Your task to perform on an android device: What's the weather today? Image 0: 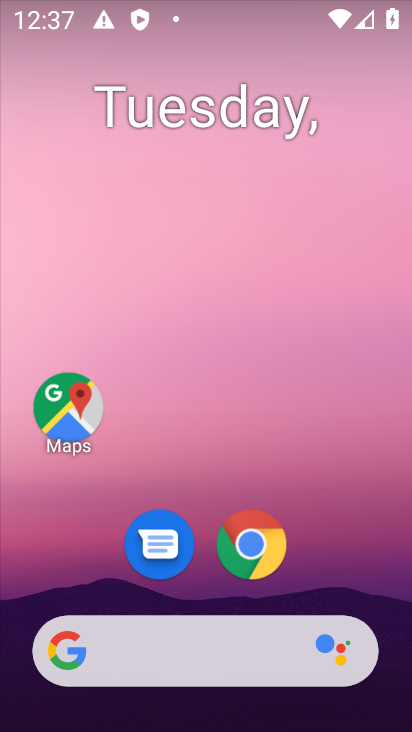
Step 0: click (249, 548)
Your task to perform on an android device: What's the weather today? Image 1: 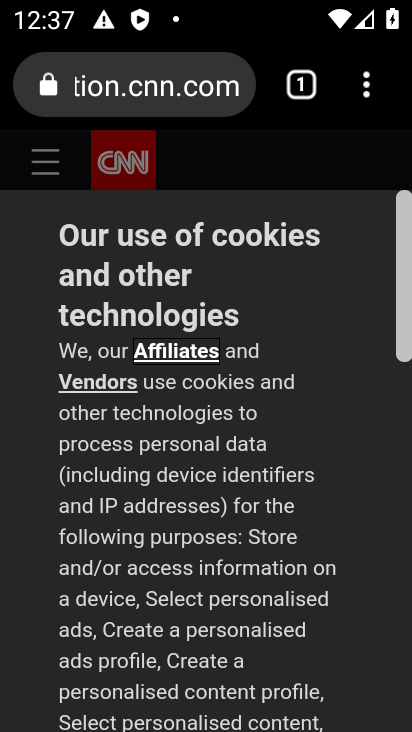
Step 1: click (152, 88)
Your task to perform on an android device: What's the weather today? Image 2: 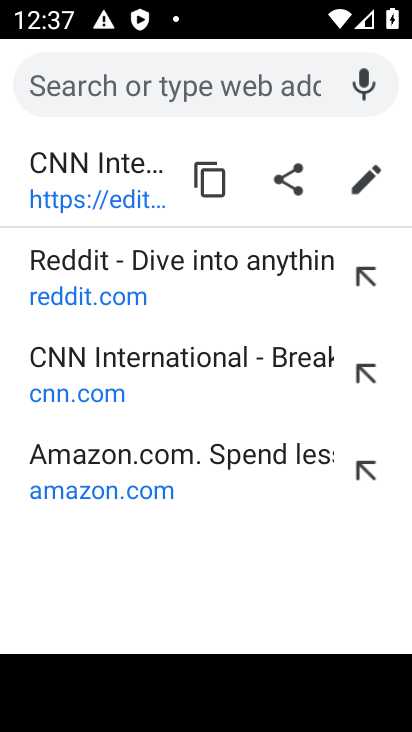
Step 2: type "weather"
Your task to perform on an android device: What's the weather today? Image 3: 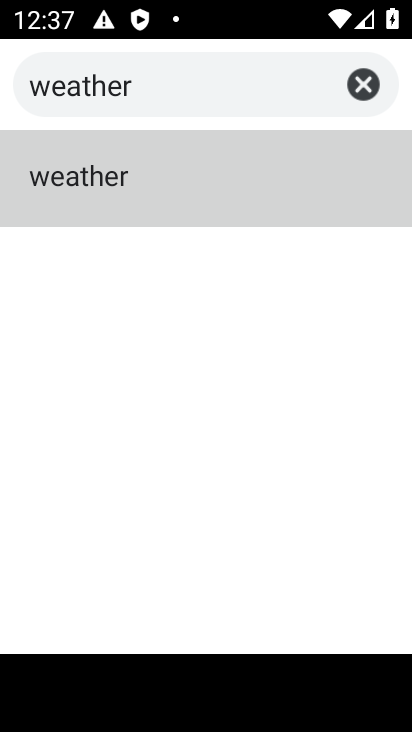
Step 3: click (129, 175)
Your task to perform on an android device: What's the weather today? Image 4: 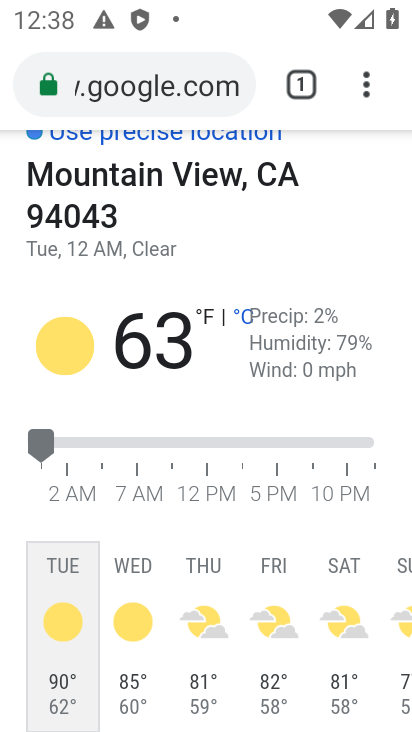
Step 4: task complete